Your task to perform on an android device: star an email in the gmail app Image 0: 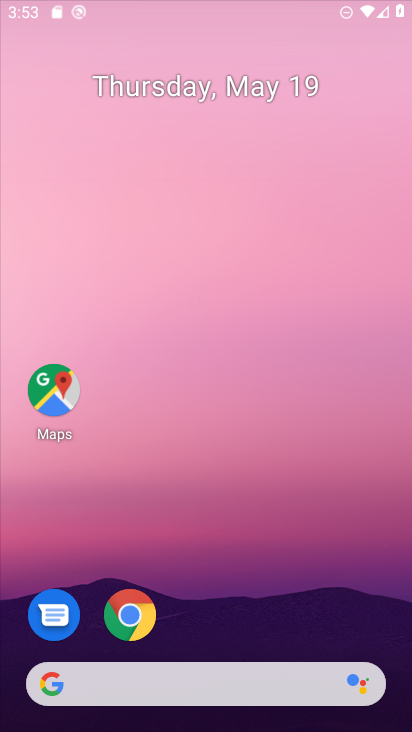
Step 0: drag from (265, 622) to (232, 173)
Your task to perform on an android device: star an email in the gmail app Image 1: 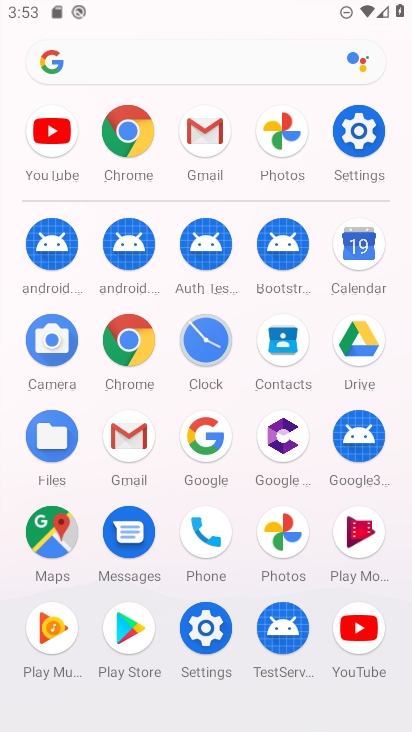
Step 1: click (212, 134)
Your task to perform on an android device: star an email in the gmail app Image 2: 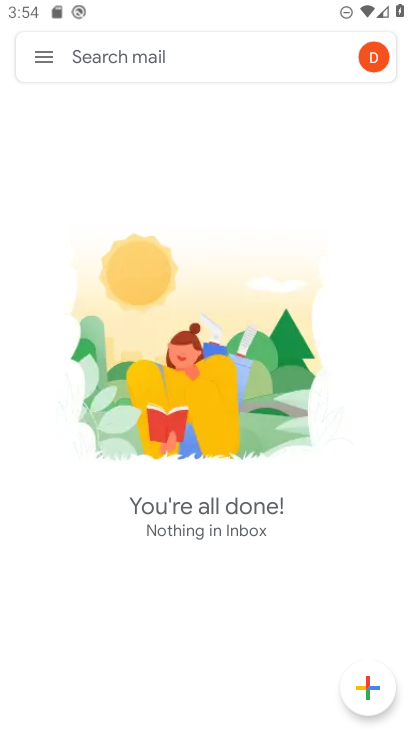
Step 2: task complete